Your task to perform on an android device: Open display settings Image 0: 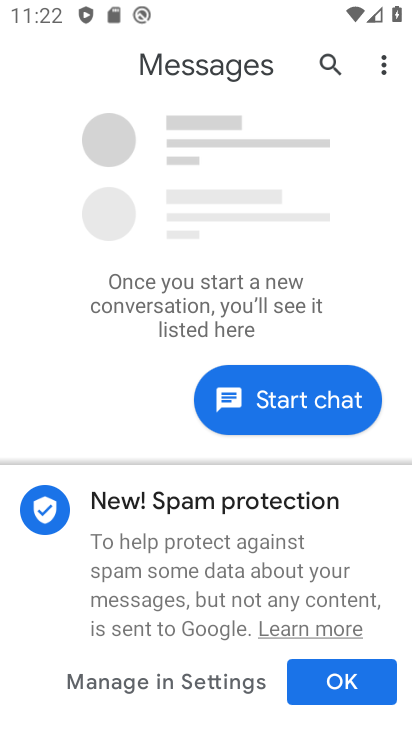
Step 0: press home button
Your task to perform on an android device: Open display settings Image 1: 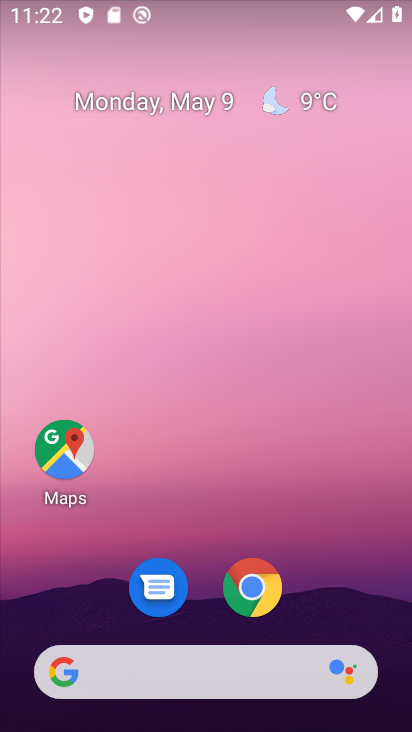
Step 1: drag from (210, 634) to (293, 278)
Your task to perform on an android device: Open display settings Image 2: 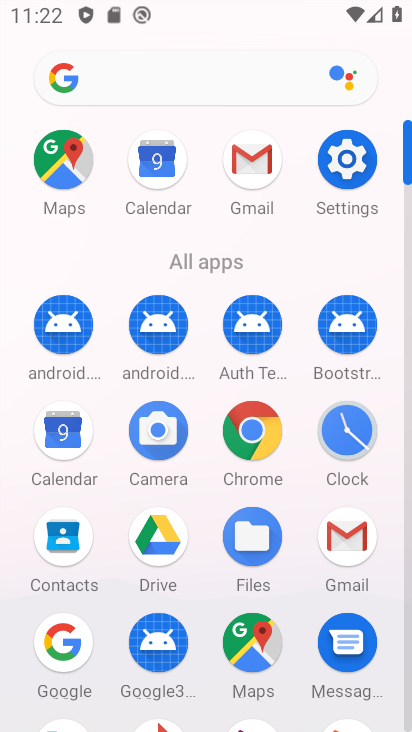
Step 2: click (348, 154)
Your task to perform on an android device: Open display settings Image 3: 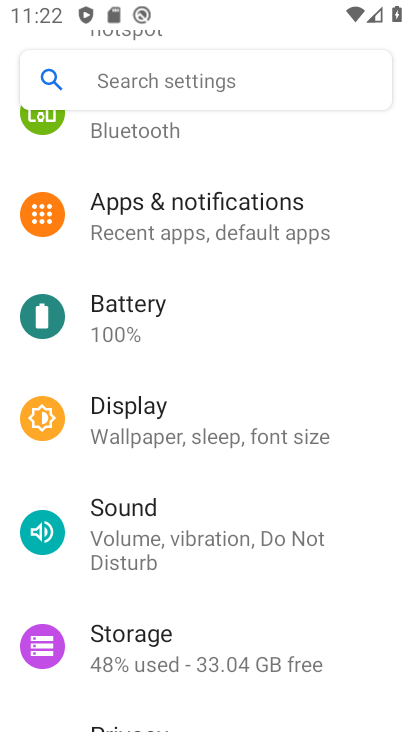
Step 3: click (179, 418)
Your task to perform on an android device: Open display settings Image 4: 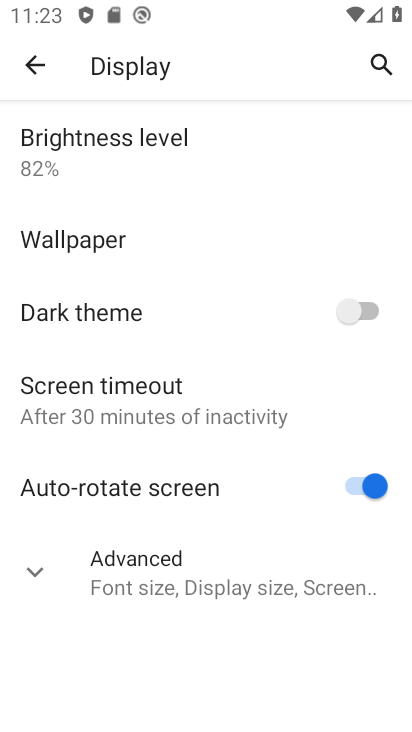
Step 4: task complete